Your task to perform on an android device: Go to Amazon Image 0: 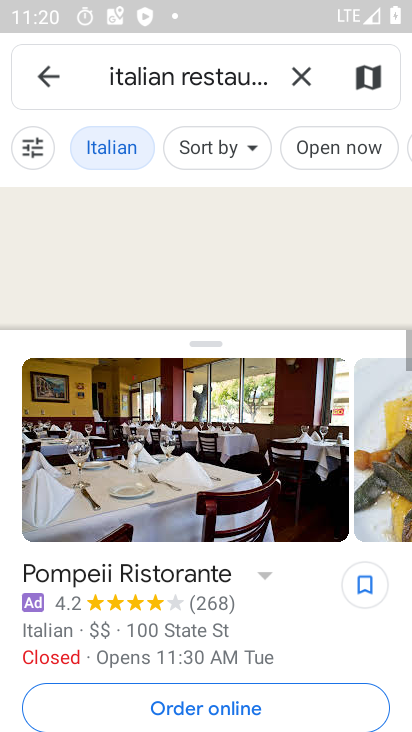
Step 0: press home button
Your task to perform on an android device: Go to Amazon Image 1: 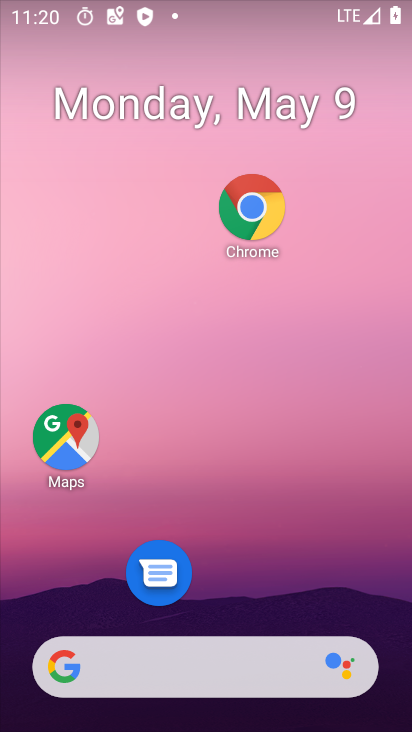
Step 1: drag from (217, 588) to (198, 301)
Your task to perform on an android device: Go to Amazon Image 2: 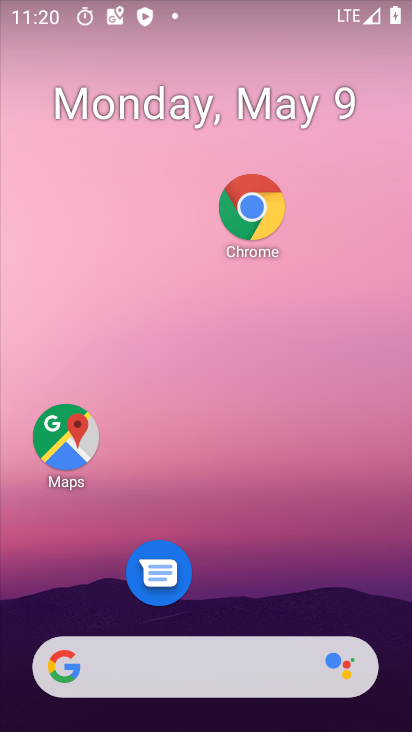
Step 2: drag from (219, 494) to (308, 20)
Your task to perform on an android device: Go to Amazon Image 3: 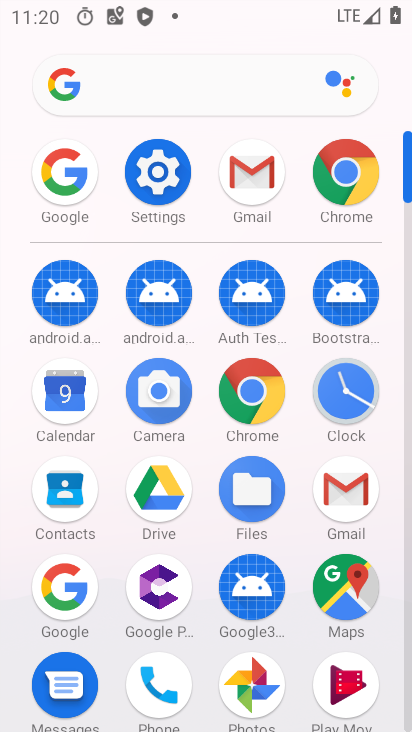
Step 3: click (337, 171)
Your task to perform on an android device: Go to Amazon Image 4: 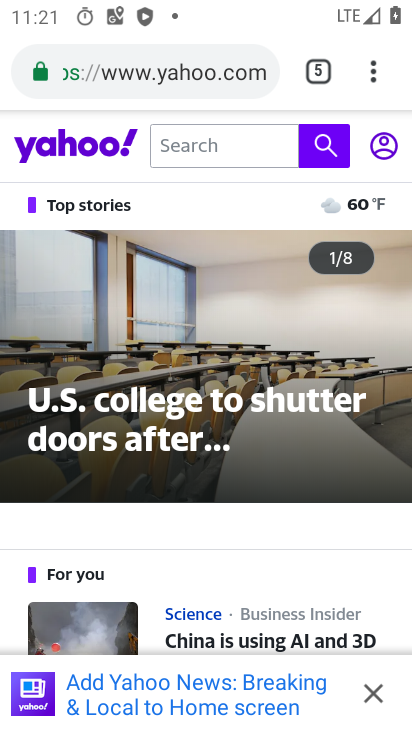
Step 4: click (235, 70)
Your task to perform on an android device: Go to Amazon Image 5: 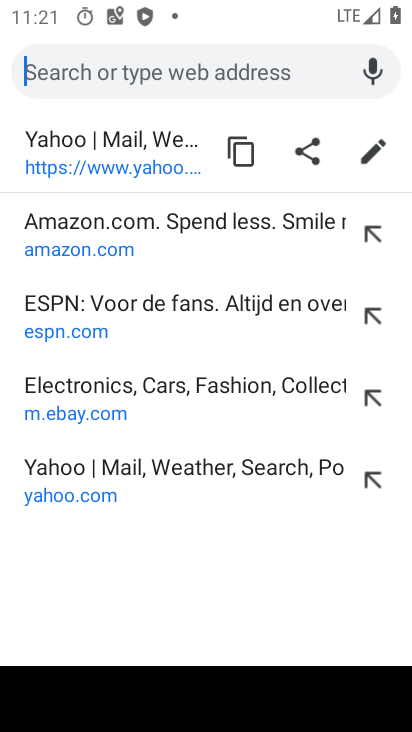
Step 5: click (130, 248)
Your task to perform on an android device: Go to Amazon Image 6: 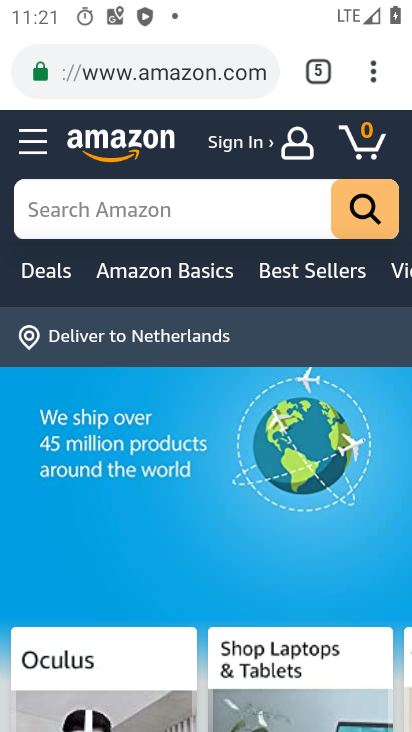
Step 6: task complete